Your task to perform on an android device: turn notification dots off Image 0: 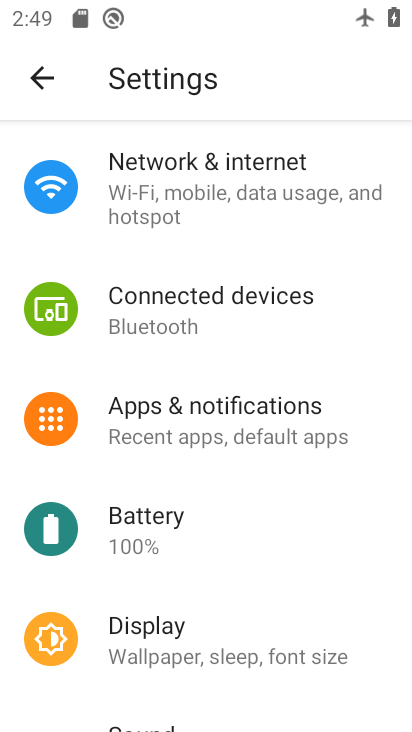
Step 0: press home button
Your task to perform on an android device: turn notification dots off Image 1: 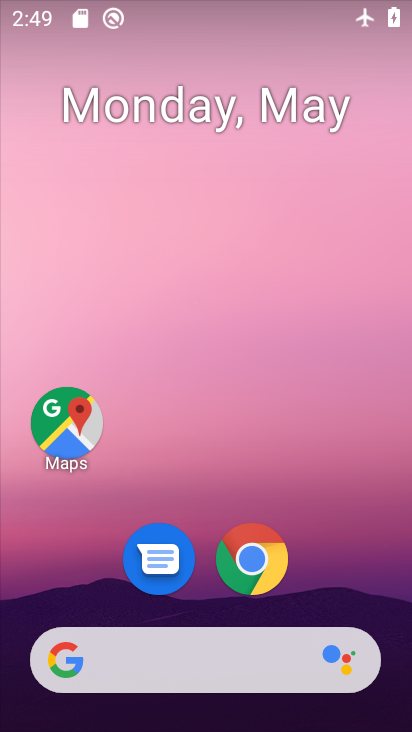
Step 1: drag from (301, 583) to (261, 210)
Your task to perform on an android device: turn notification dots off Image 2: 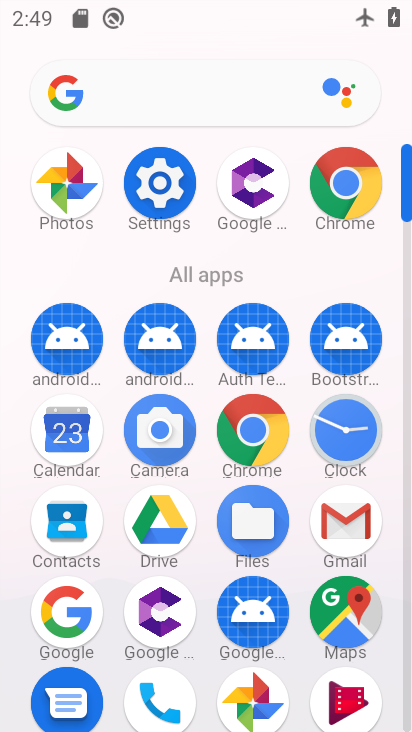
Step 2: click (140, 200)
Your task to perform on an android device: turn notification dots off Image 3: 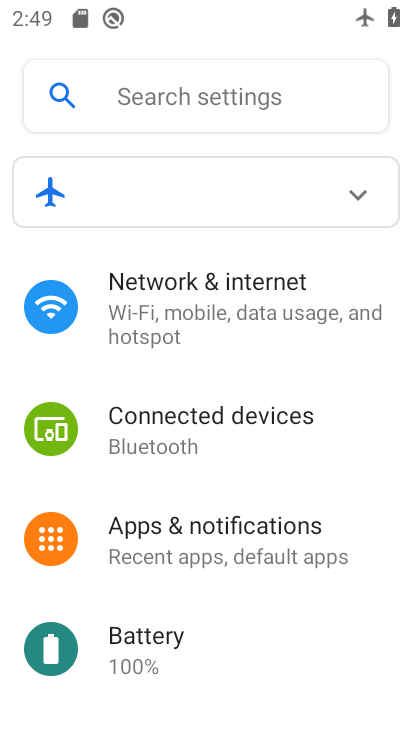
Step 3: click (240, 540)
Your task to perform on an android device: turn notification dots off Image 4: 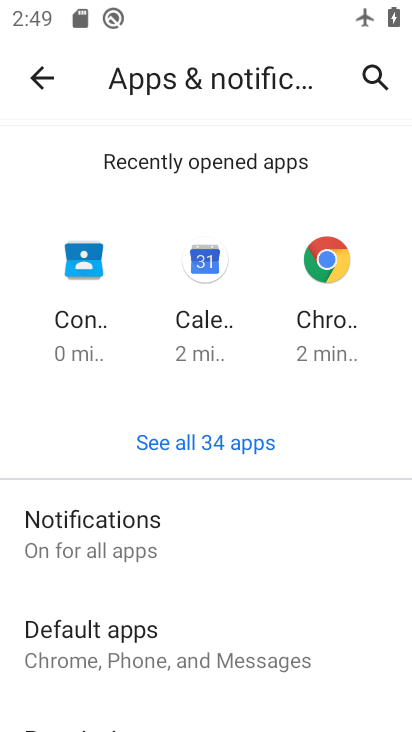
Step 4: drag from (180, 665) to (212, 422)
Your task to perform on an android device: turn notification dots off Image 5: 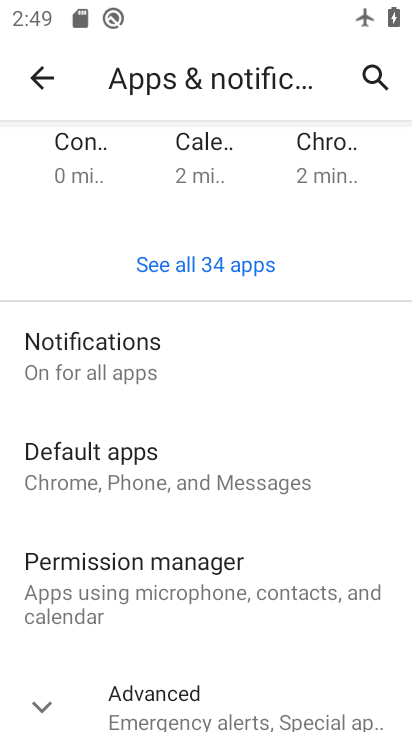
Step 5: click (114, 368)
Your task to perform on an android device: turn notification dots off Image 6: 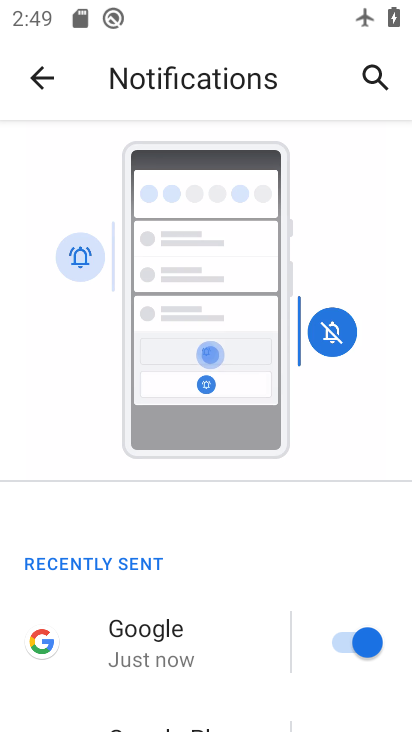
Step 6: drag from (222, 652) to (228, 249)
Your task to perform on an android device: turn notification dots off Image 7: 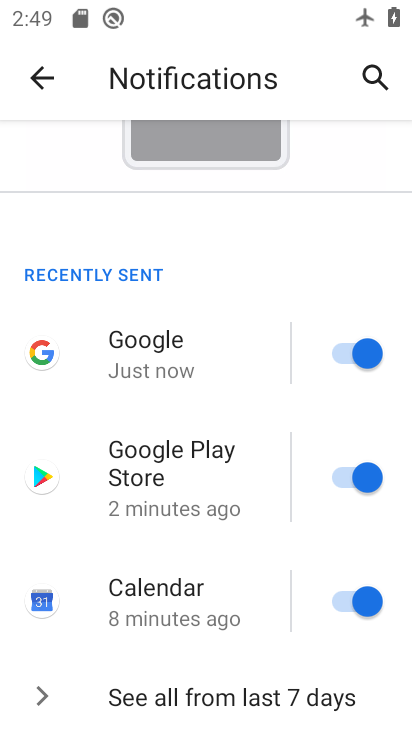
Step 7: drag from (214, 639) to (215, 282)
Your task to perform on an android device: turn notification dots off Image 8: 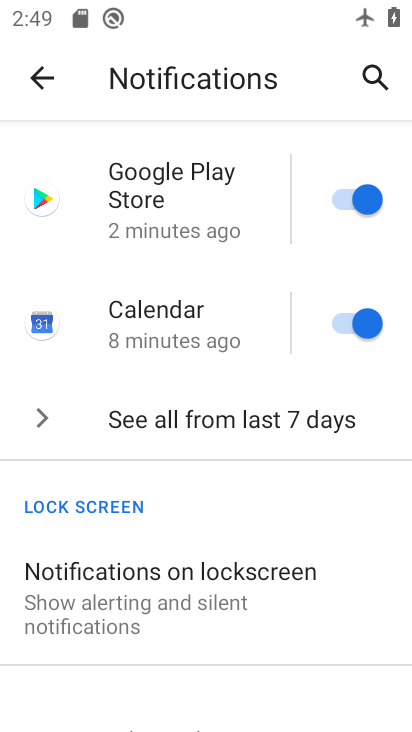
Step 8: drag from (172, 660) to (175, 419)
Your task to perform on an android device: turn notification dots off Image 9: 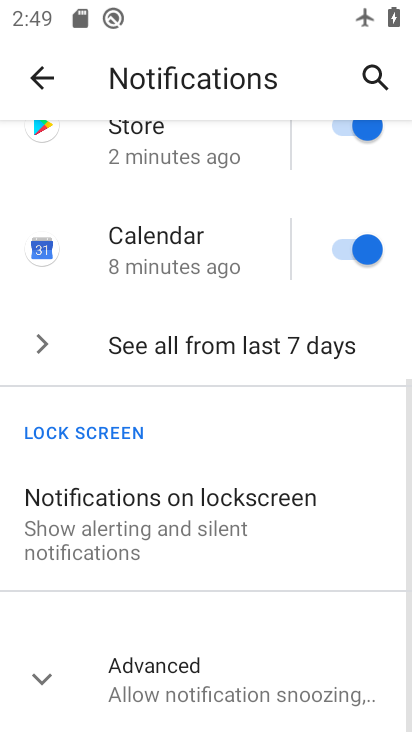
Step 9: click (158, 701)
Your task to perform on an android device: turn notification dots off Image 10: 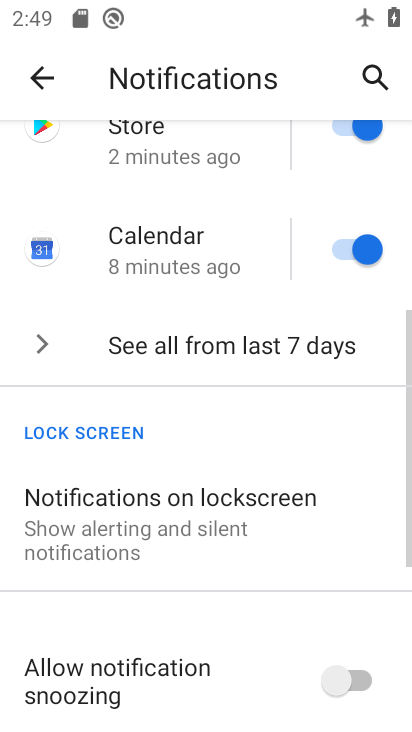
Step 10: drag from (173, 696) to (244, 432)
Your task to perform on an android device: turn notification dots off Image 11: 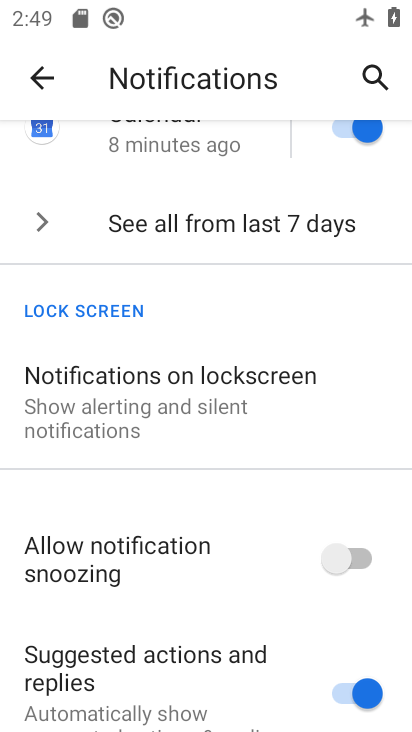
Step 11: drag from (226, 671) to (247, 373)
Your task to perform on an android device: turn notification dots off Image 12: 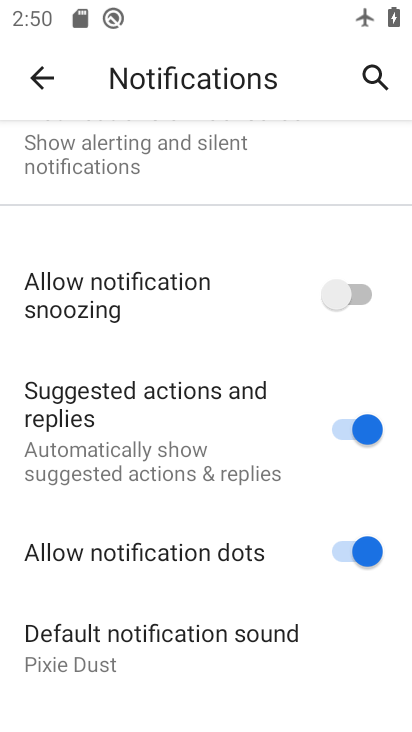
Step 12: drag from (210, 662) to (225, 332)
Your task to perform on an android device: turn notification dots off Image 13: 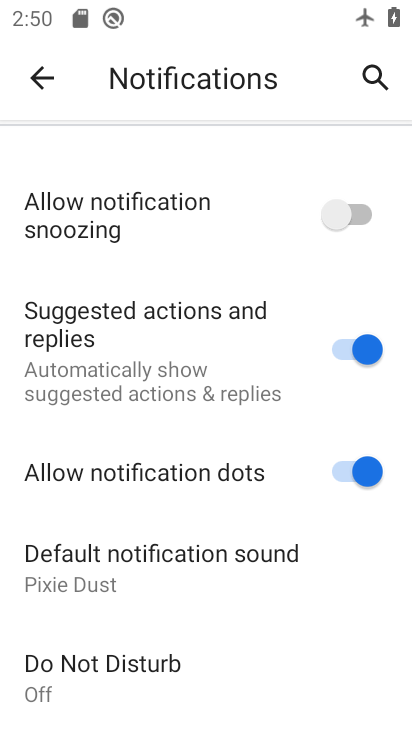
Step 13: click (350, 476)
Your task to perform on an android device: turn notification dots off Image 14: 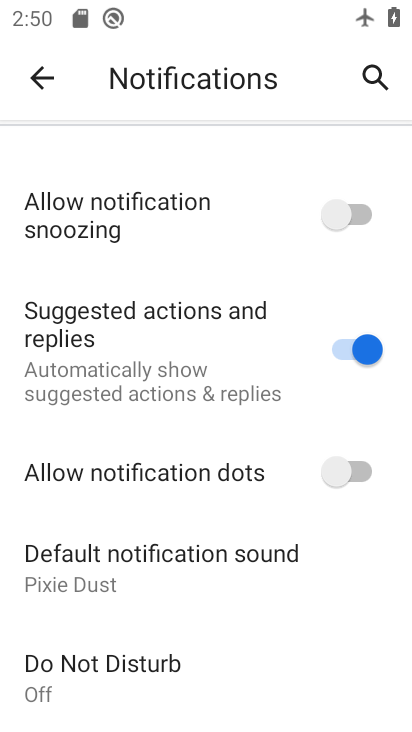
Step 14: task complete